Your task to perform on an android device: Turn on the flashlight Image 0: 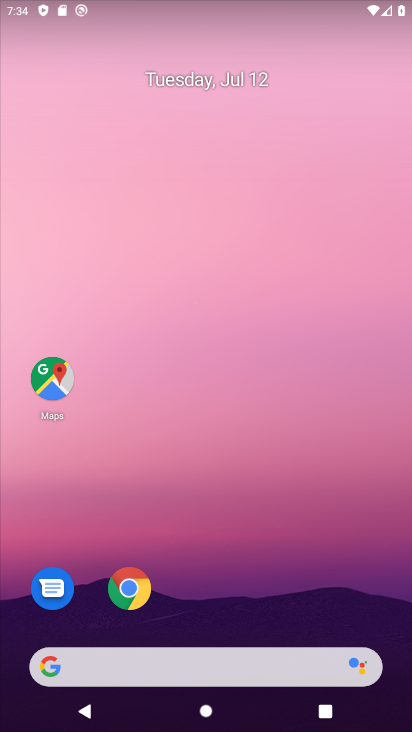
Step 0: drag from (289, 424) to (297, 11)
Your task to perform on an android device: Turn on the flashlight Image 1: 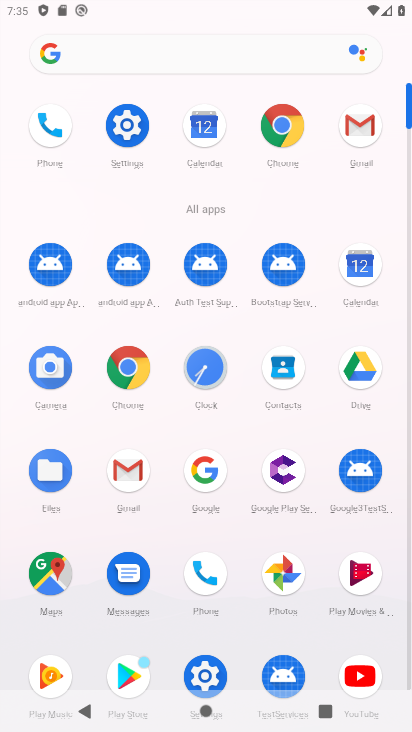
Step 1: click (124, 129)
Your task to perform on an android device: Turn on the flashlight Image 2: 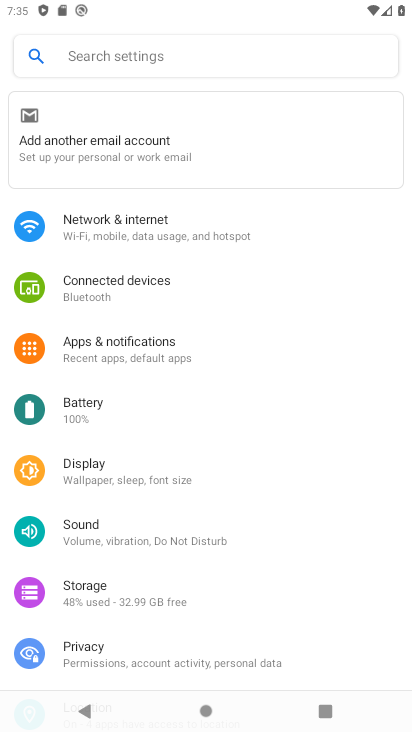
Step 2: task complete